Your task to perform on an android device: uninstall "Cash App" Image 0: 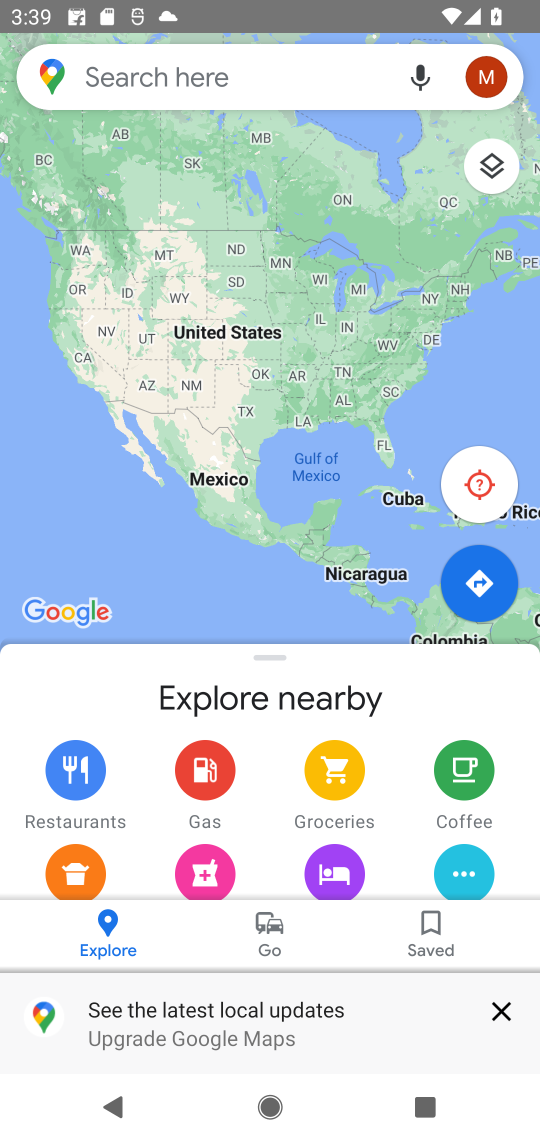
Step 0: press home button
Your task to perform on an android device: uninstall "Cash App" Image 1: 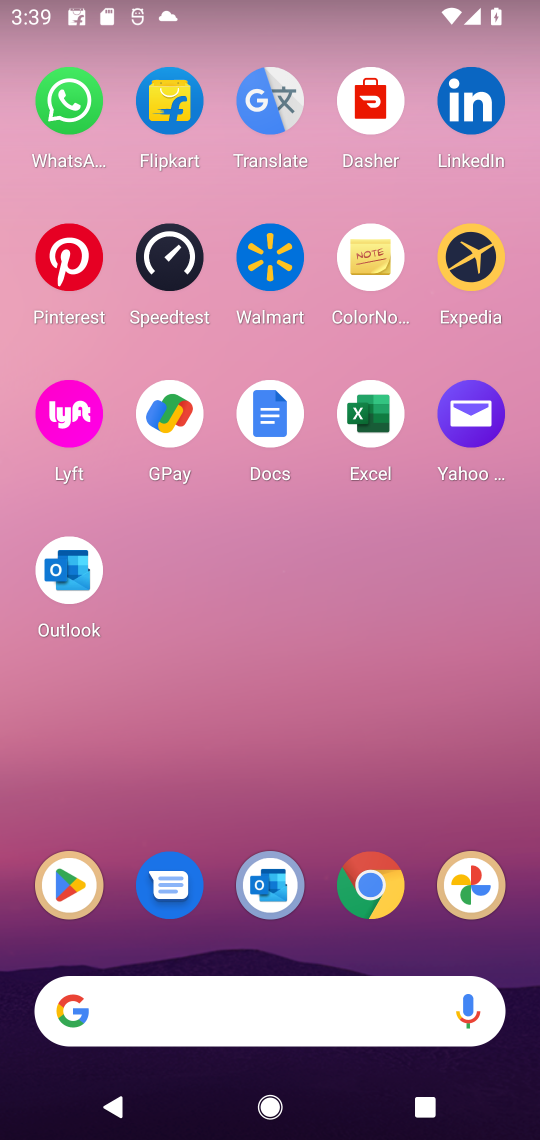
Step 1: click (53, 883)
Your task to perform on an android device: uninstall "Cash App" Image 2: 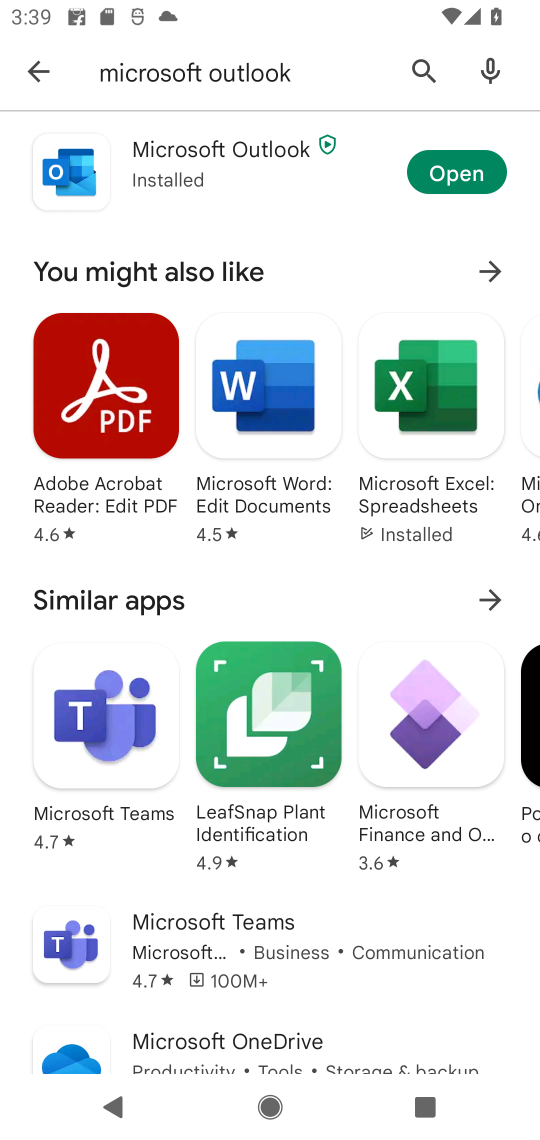
Step 2: click (425, 61)
Your task to perform on an android device: uninstall "Cash App" Image 3: 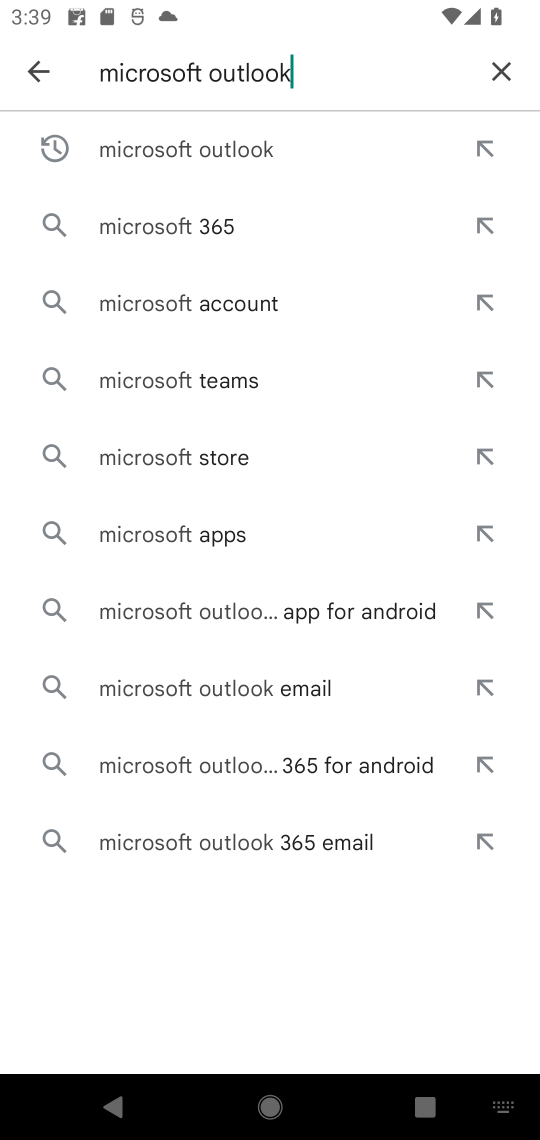
Step 3: click (506, 69)
Your task to perform on an android device: uninstall "Cash App" Image 4: 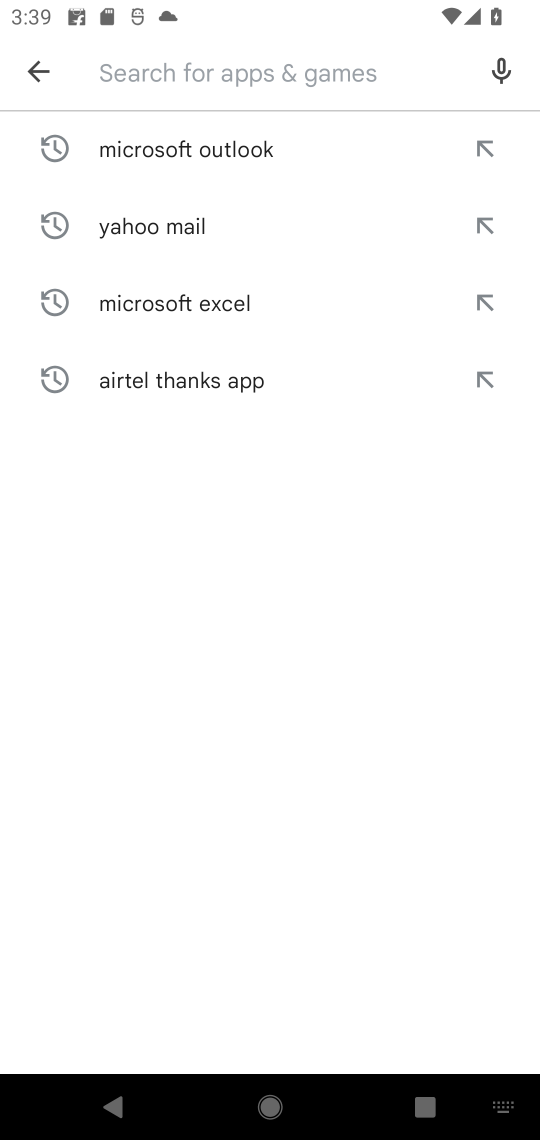
Step 4: click (333, 83)
Your task to perform on an android device: uninstall "Cash App" Image 5: 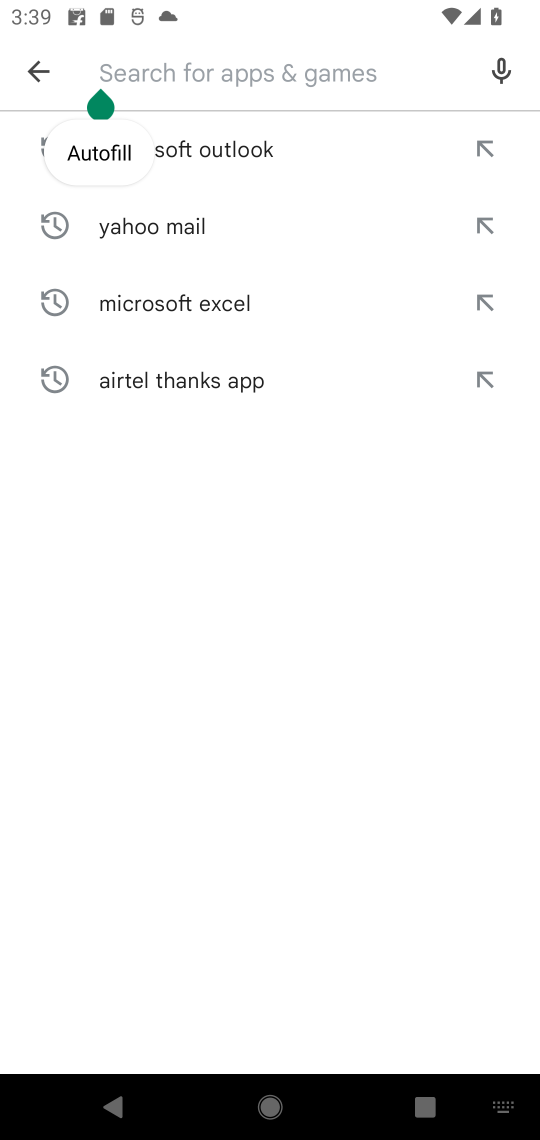
Step 5: type "Cash App"
Your task to perform on an android device: uninstall "Cash App" Image 6: 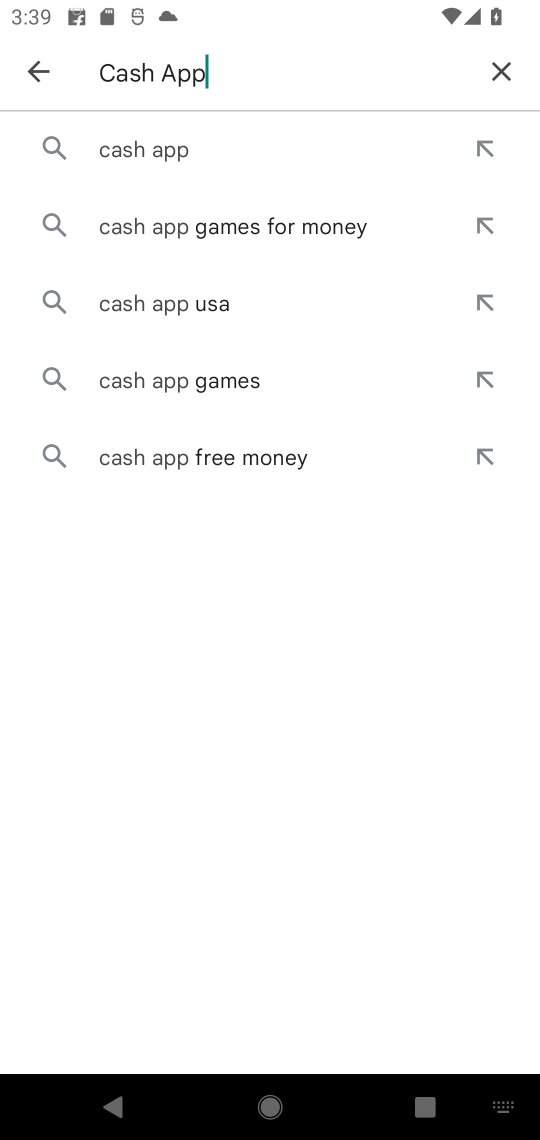
Step 6: click (140, 161)
Your task to perform on an android device: uninstall "Cash App" Image 7: 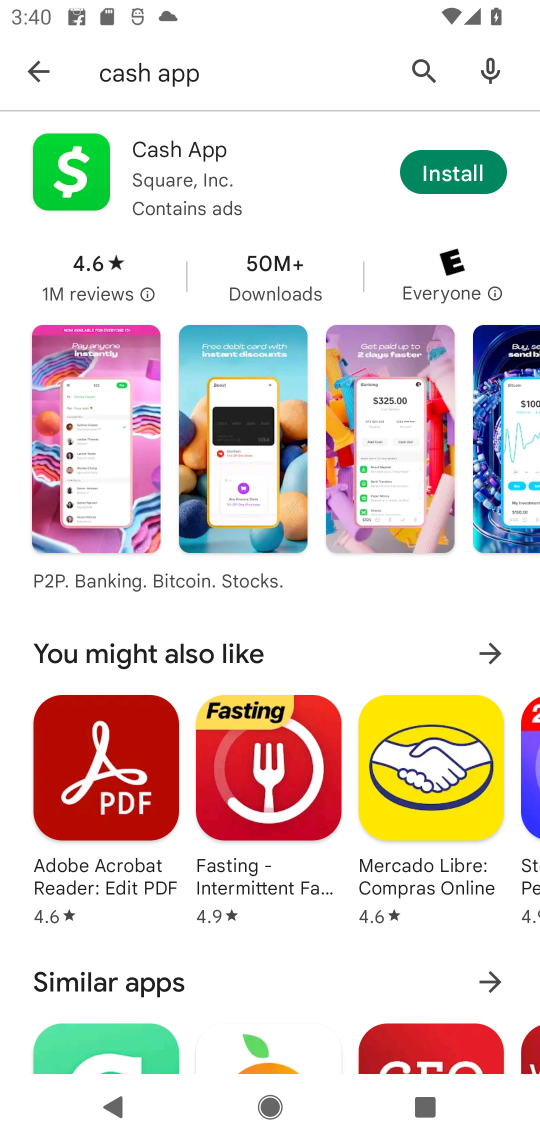
Step 7: task complete